Your task to perform on an android device: turn on location history Image 0: 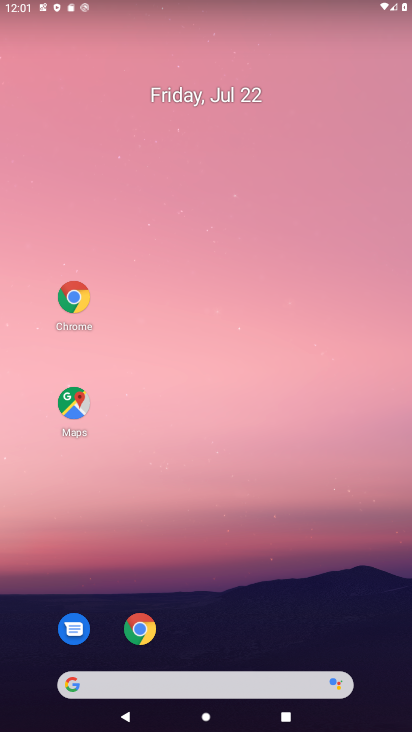
Step 0: drag from (265, 676) to (262, 253)
Your task to perform on an android device: turn on location history Image 1: 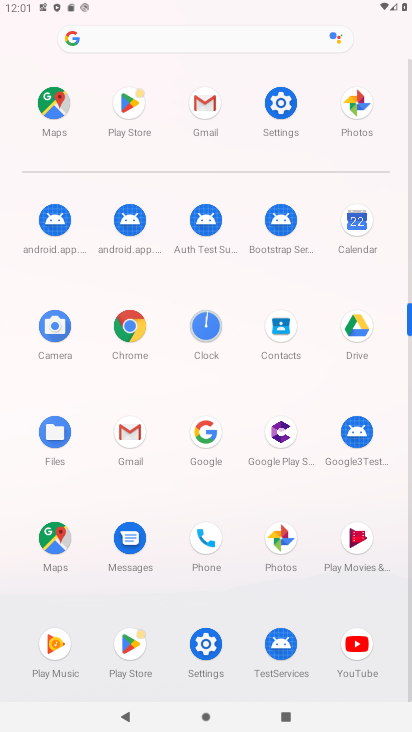
Step 1: click (288, 108)
Your task to perform on an android device: turn on location history Image 2: 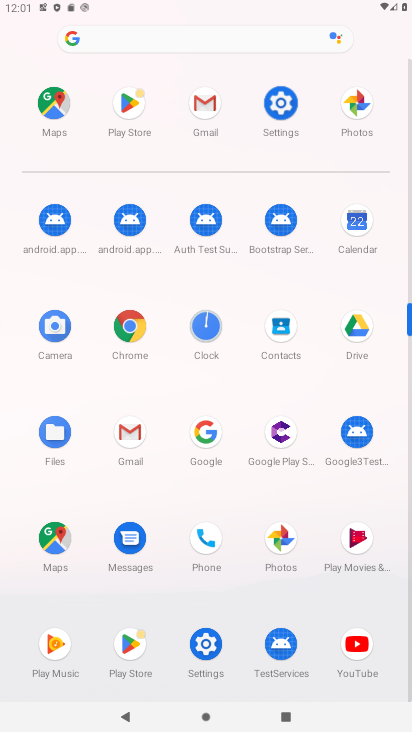
Step 2: click (288, 108)
Your task to perform on an android device: turn on location history Image 3: 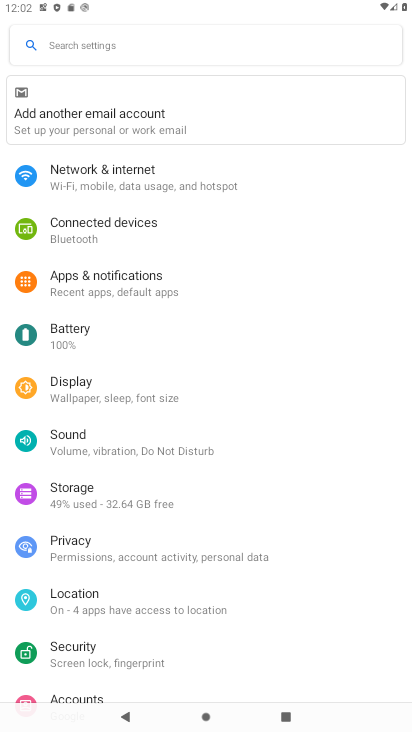
Step 3: click (75, 581)
Your task to perform on an android device: turn on location history Image 4: 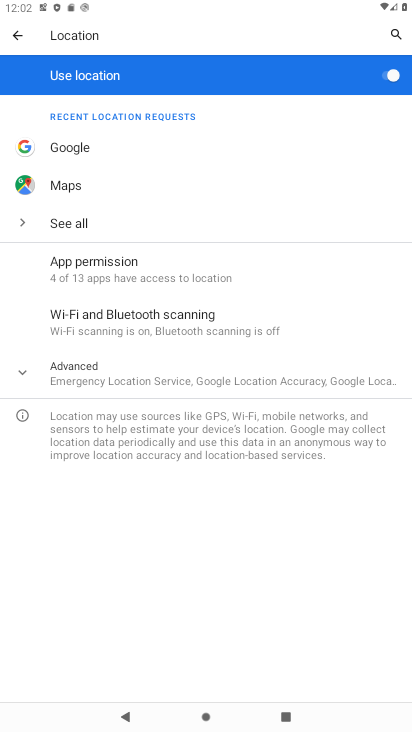
Step 4: click (84, 375)
Your task to perform on an android device: turn on location history Image 5: 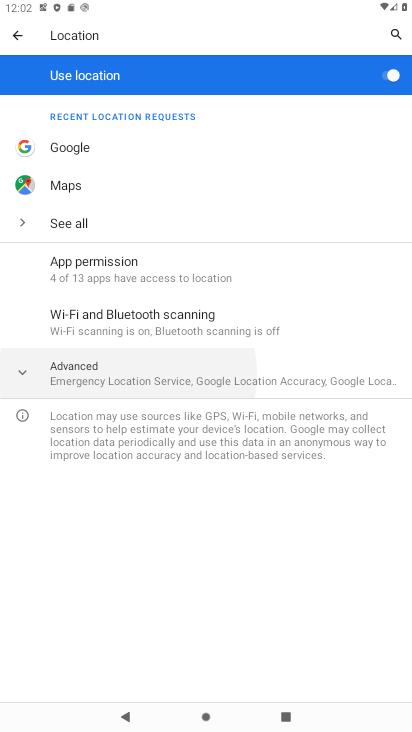
Step 5: click (83, 373)
Your task to perform on an android device: turn on location history Image 6: 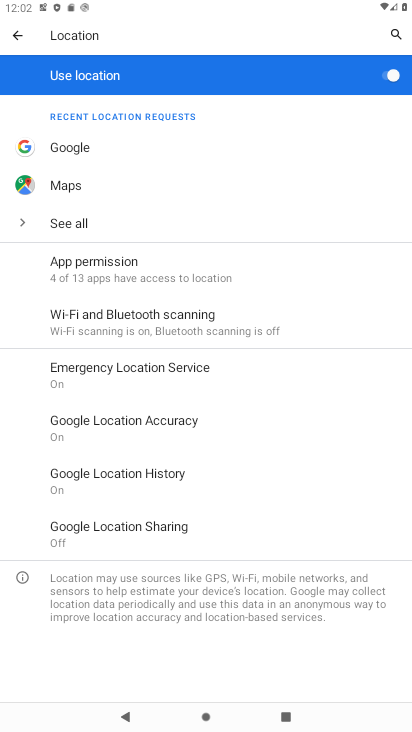
Step 6: click (116, 471)
Your task to perform on an android device: turn on location history Image 7: 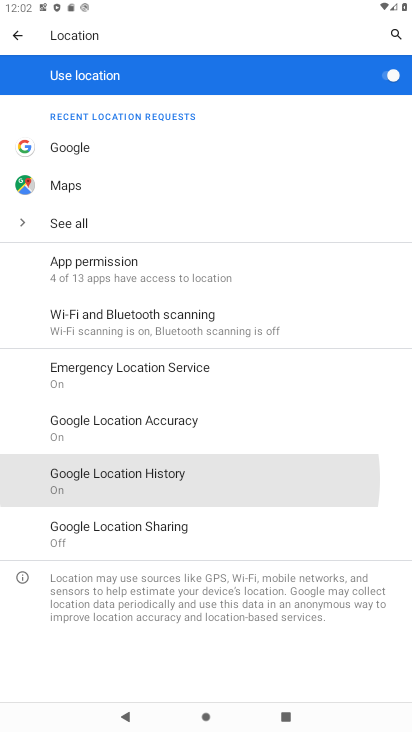
Step 7: click (117, 470)
Your task to perform on an android device: turn on location history Image 8: 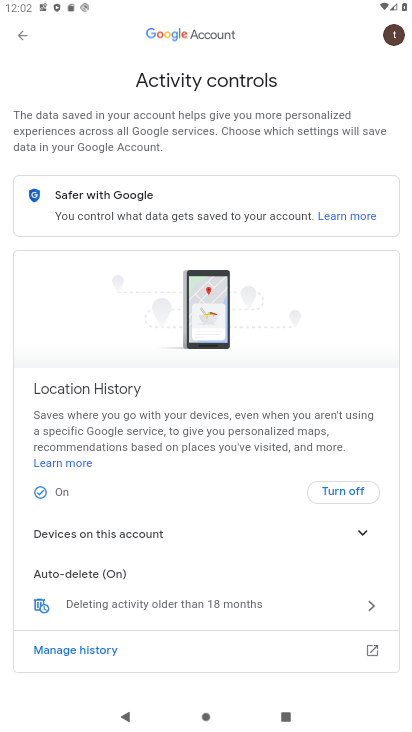
Step 8: task complete